Your task to perform on an android device: turn notification dots on Image 0: 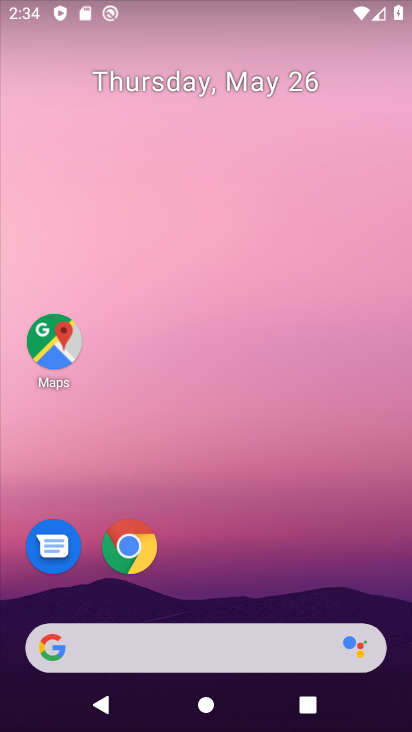
Step 0: drag from (307, 439) to (239, 64)
Your task to perform on an android device: turn notification dots on Image 1: 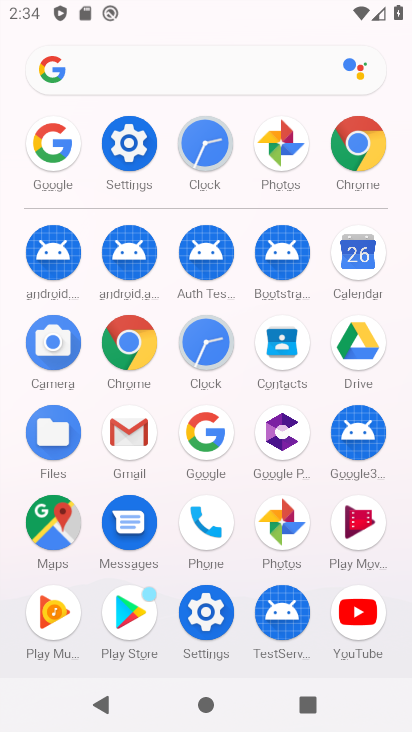
Step 1: click (125, 158)
Your task to perform on an android device: turn notification dots on Image 2: 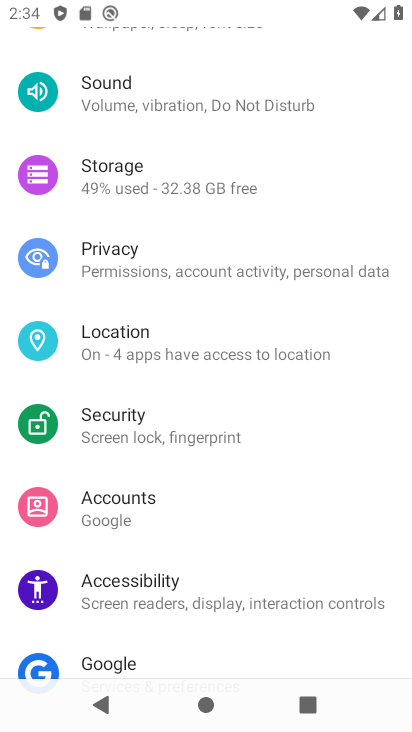
Step 2: drag from (254, 574) to (257, 690)
Your task to perform on an android device: turn notification dots on Image 3: 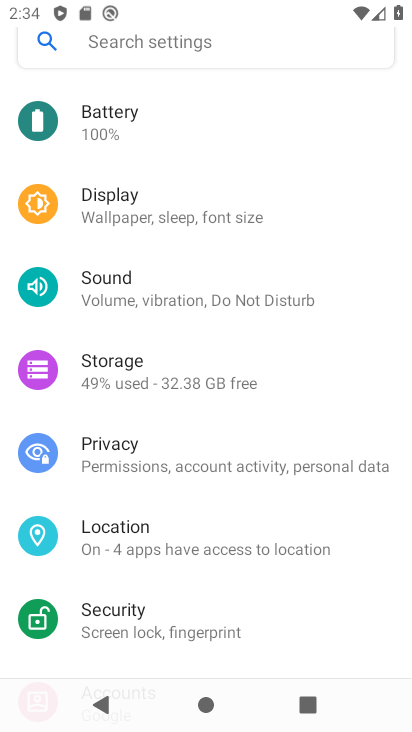
Step 3: drag from (174, 208) to (235, 647)
Your task to perform on an android device: turn notification dots on Image 4: 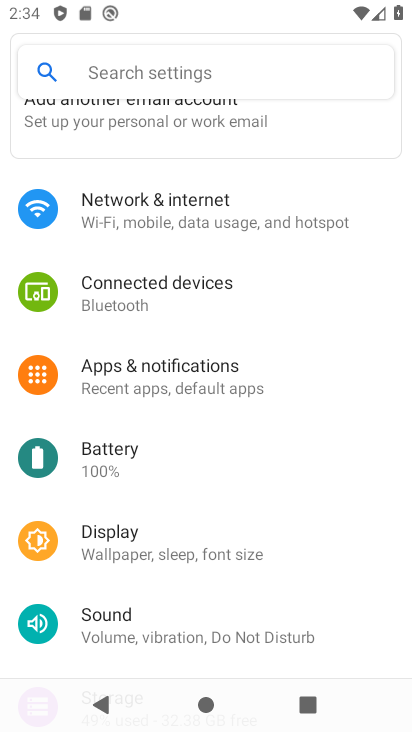
Step 4: click (194, 367)
Your task to perform on an android device: turn notification dots on Image 5: 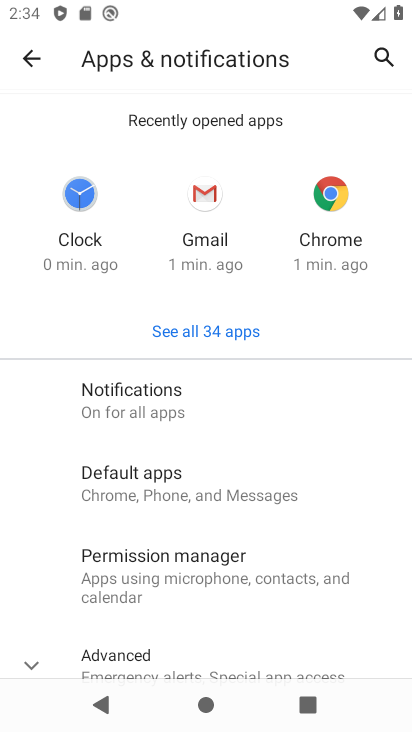
Step 5: drag from (263, 611) to (251, 359)
Your task to perform on an android device: turn notification dots on Image 6: 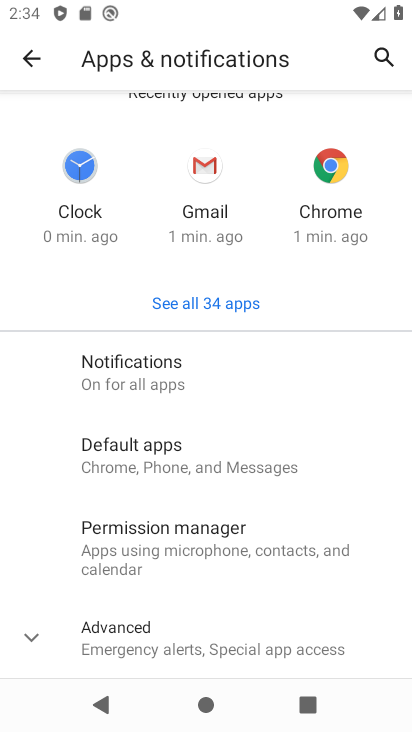
Step 6: click (194, 373)
Your task to perform on an android device: turn notification dots on Image 7: 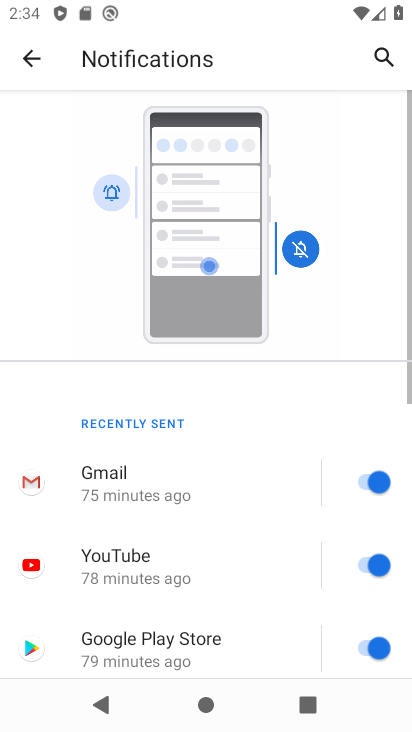
Step 7: drag from (237, 616) to (224, 85)
Your task to perform on an android device: turn notification dots on Image 8: 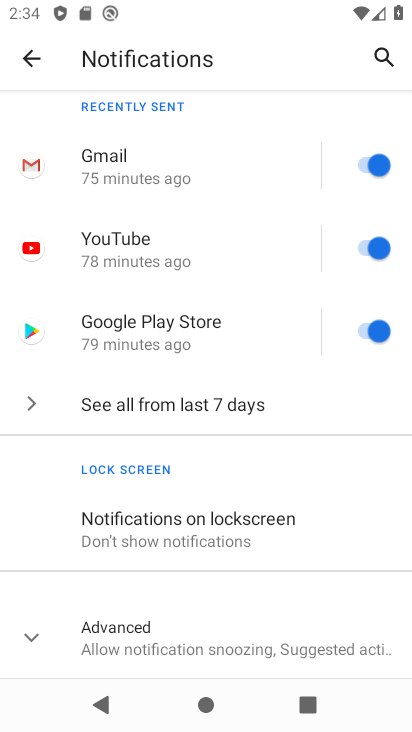
Step 8: click (272, 634)
Your task to perform on an android device: turn notification dots on Image 9: 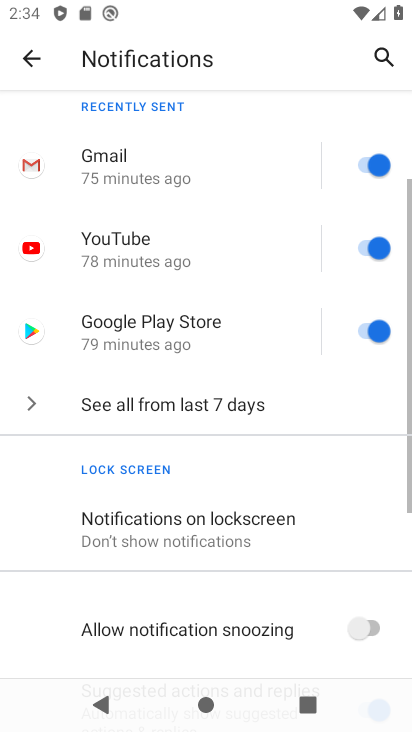
Step 9: task complete